Your task to perform on an android device: clear history in the chrome app Image 0: 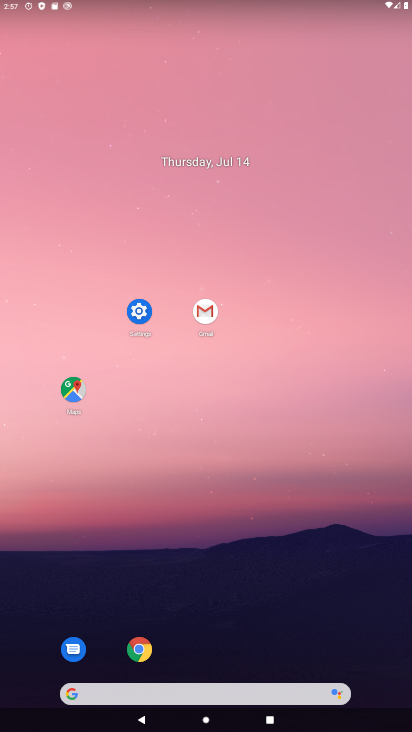
Step 0: click (139, 654)
Your task to perform on an android device: clear history in the chrome app Image 1: 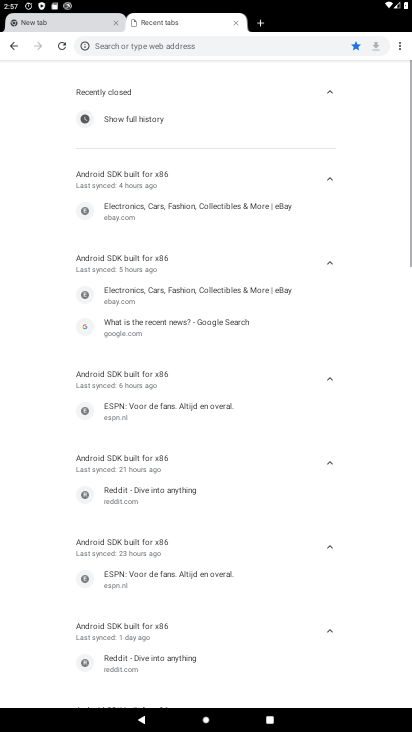
Step 1: click (402, 47)
Your task to perform on an android device: clear history in the chrome app Image 2: 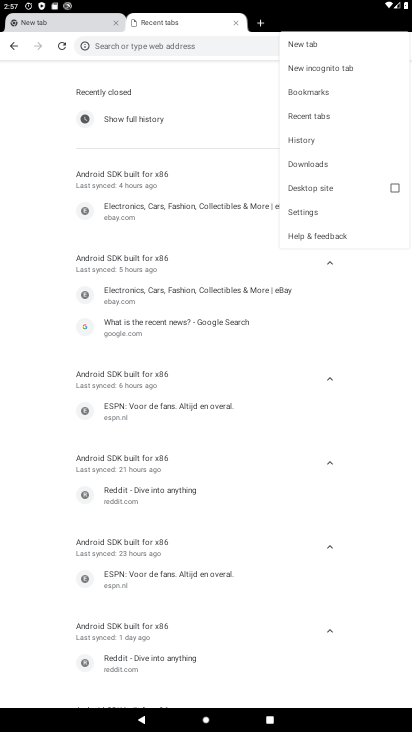
Step 2: click (314, 213)
Your task to perform on an android device: clear history in the chrome app Image 3: 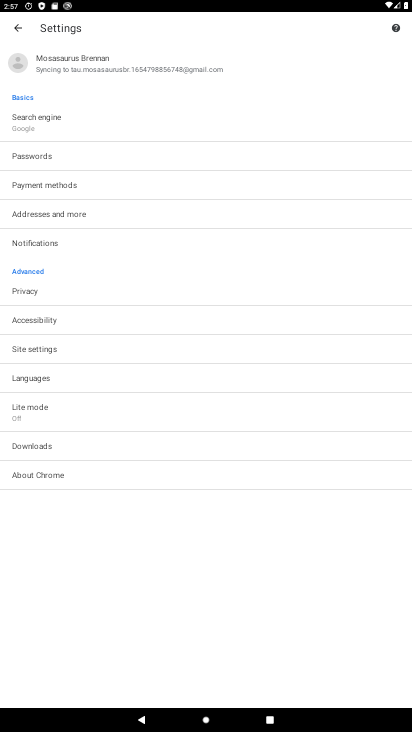
Step 3: click (67, 296)
Your task to perform on an android device: clear history in the chrome app Image 4: 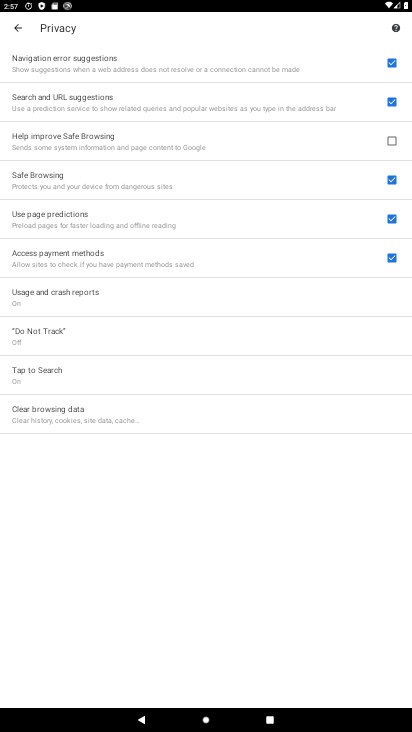
Step 4: click (104, 411)
Your task to perform on an android device: clear history in the chrome app Image 5: 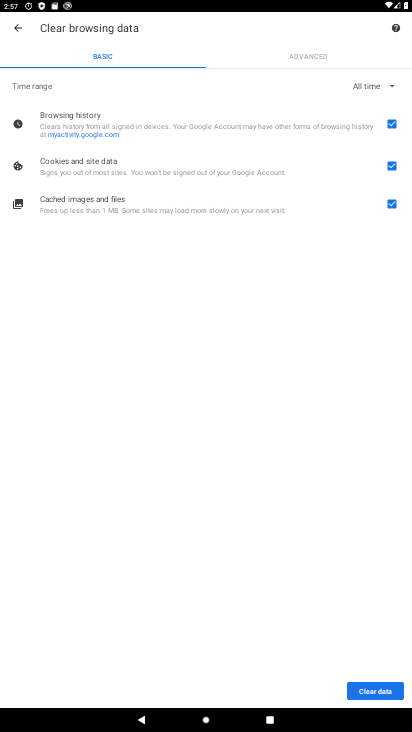
Step 5: click (363, 688)
Your task to perform on an android device: clear history in the chrome app Image 6: 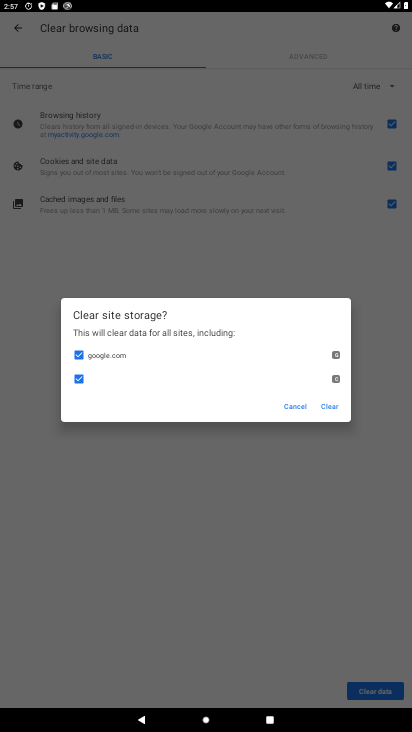
Step 6: click (331, 406)
Your task to perform on an android device: clear history in the chrome app Image 7: 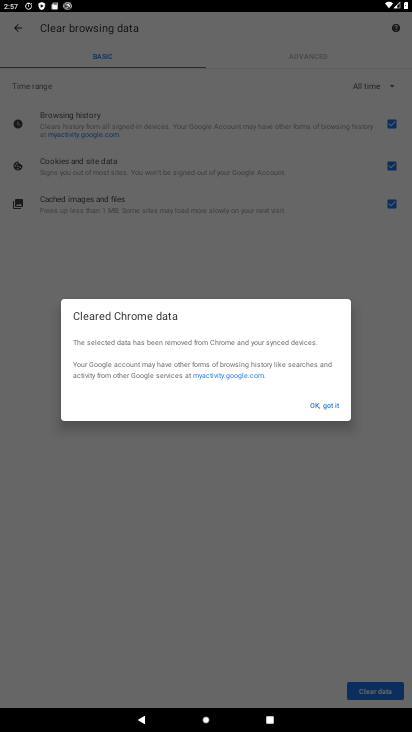
Step 7: click (329, 397)
Your task to perform on an android device: clear history in the chrome app Image 8: 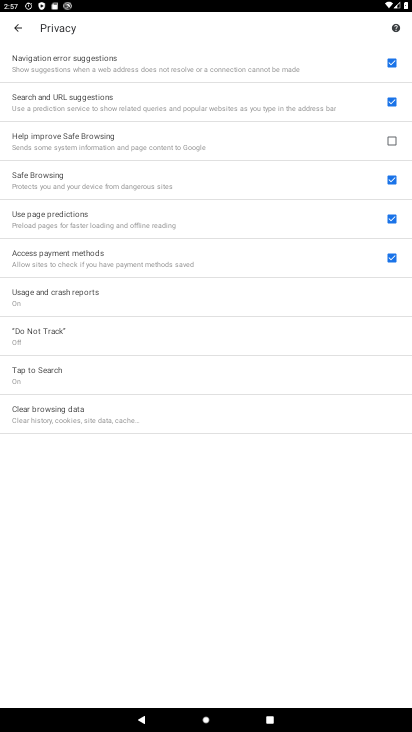
Step 8: task complete